Your task to perform on an android device: turn on the 24-hour format for clock Image 0: 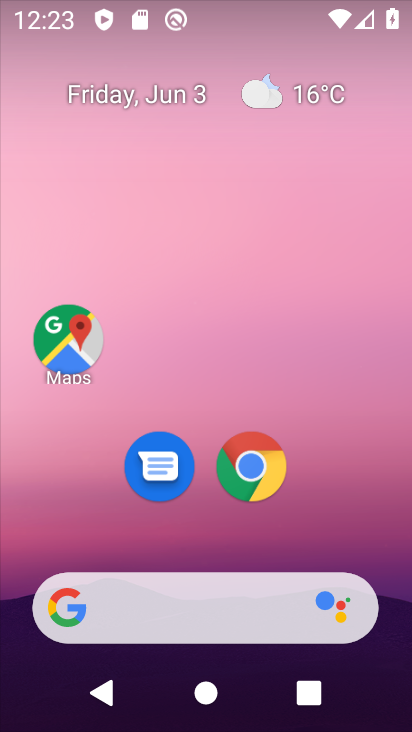
Step 0: drag from (180, 574) to (267, 214)
Your task to perform on an android device: turn on the 24-hour format for clock Image 1: 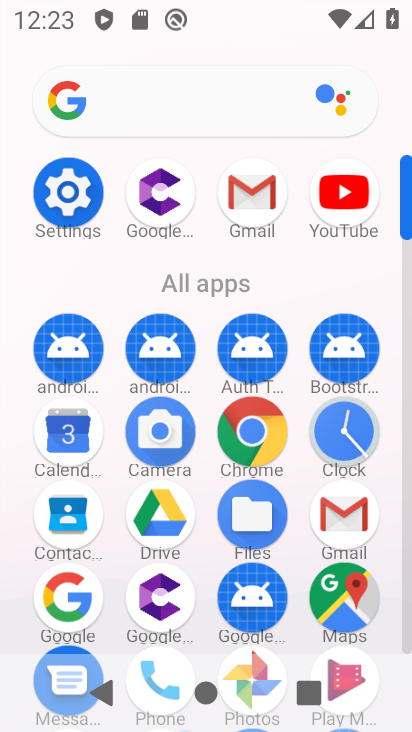
Step 1: click (347, 455)
Your task to perform on an android device: turn on the 24-hour format for clock Image 2: 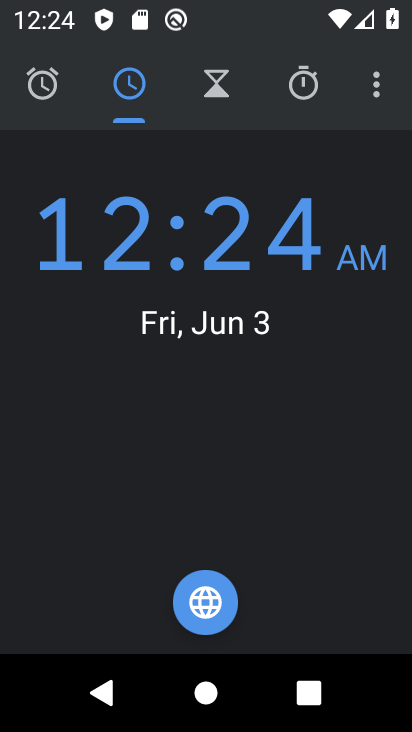
Step 2: click (380, 80)
Your task to perform on an android device: turn on the 24-hour format for clock Image 3: 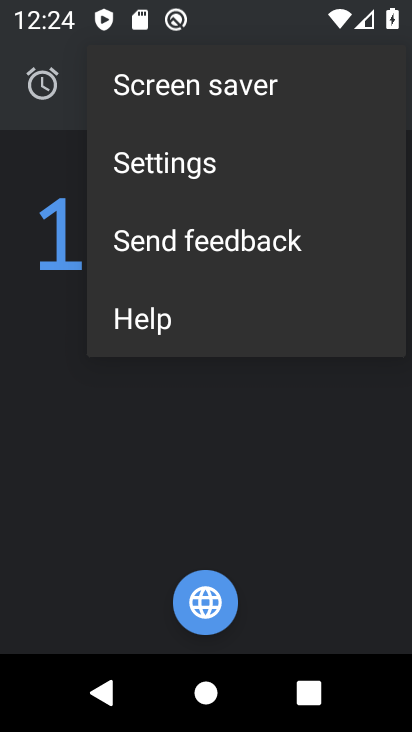
Step 3: click (330, 178)
Your task to perform on an android device: turn on the 24-hour format for clock Image 4: 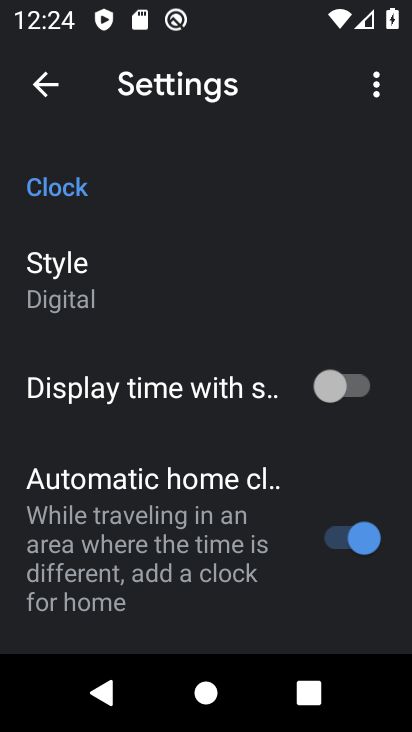
Step 4: drag from (186, 554) to (268, 211)
Your task to perform on an android device: turn on the 24-hour format for clock Image 5: 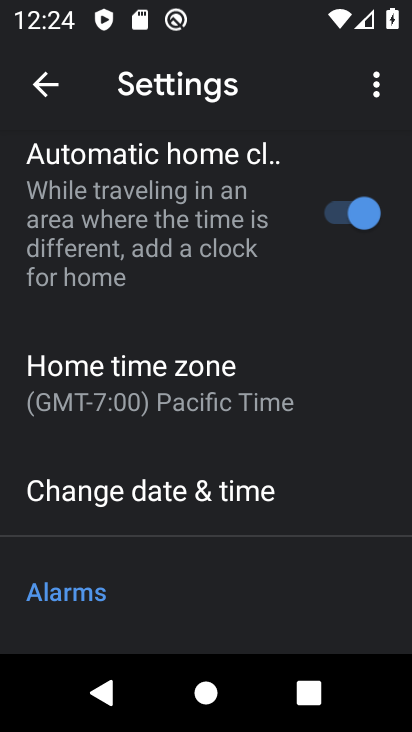
Step 5: click (225, 509)
Your task to perform on an android device: turn on the 24-hour format for clock Image 6: 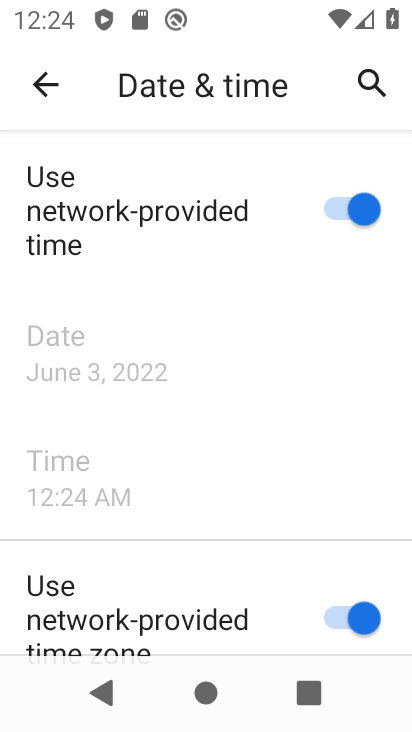
Step 6: drag from (213, 540) to (329, 55)
Your task to perform on an android device: turn on the 24-hour format for clock Image 7: 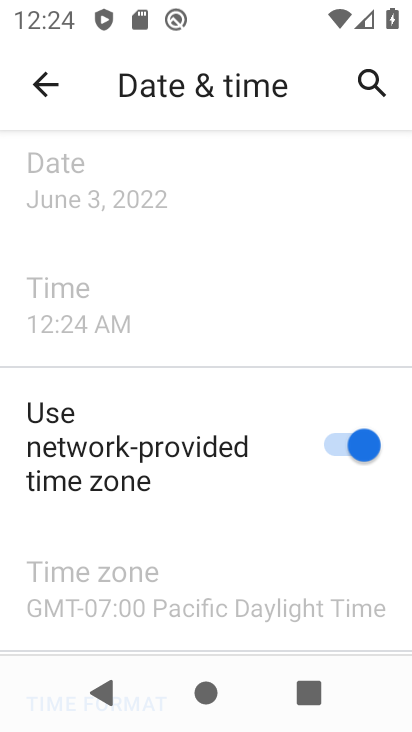
Step 7: drag from (175, 598) to (247, 320)
Your task to perform on an android device: turn on the 24-hour format for clock Image 8: 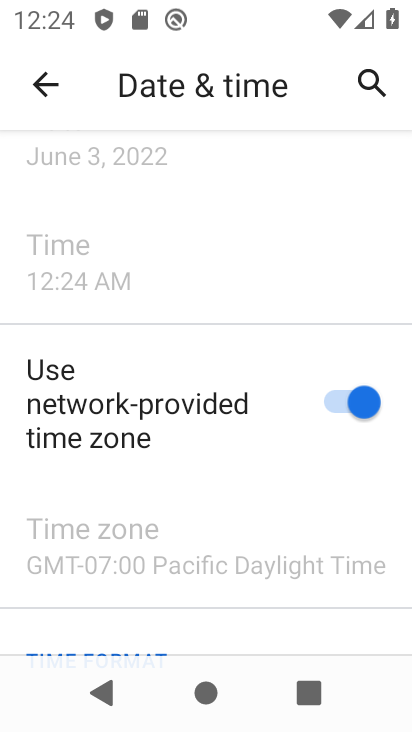
Step 8: drag from (215, 488) to (350, 0)
Your task to perform on an android device: turn on the 24-hour format for clock Image 9: 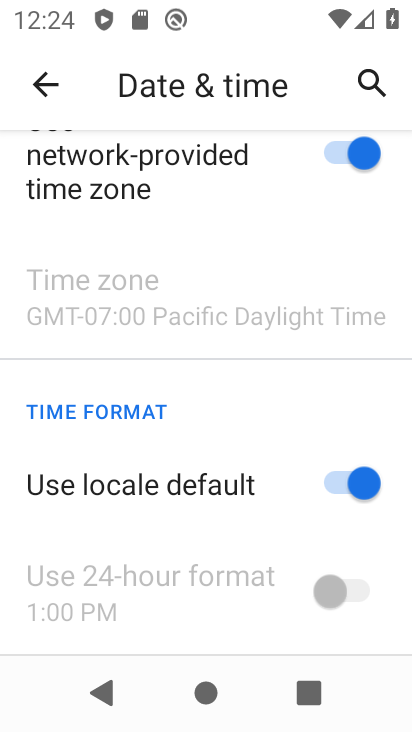
Step 9: click (352, 484)
Your task to perform on an android device: turn on the 24-hour format for clock Image 10: 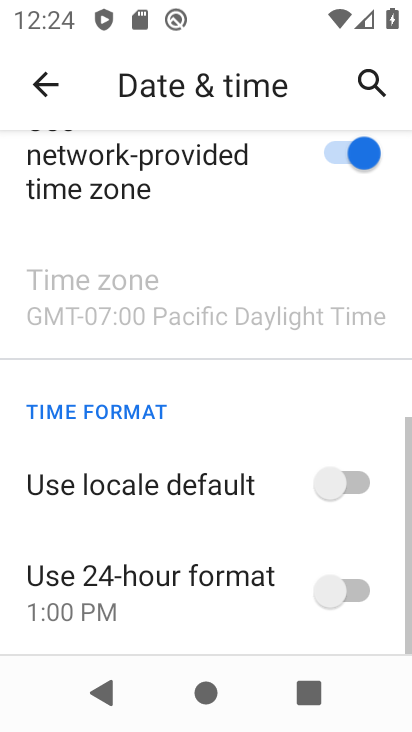
Step 10: click (361, 597)
Your task to perform on an android device: turn on the 24-hour format for clock Image 11: 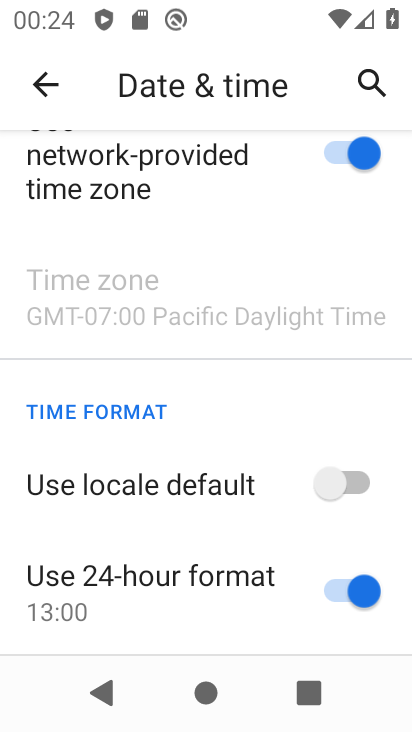
Step 11: task complete